Your task to perform on an android device: turn off wifi Image 0: 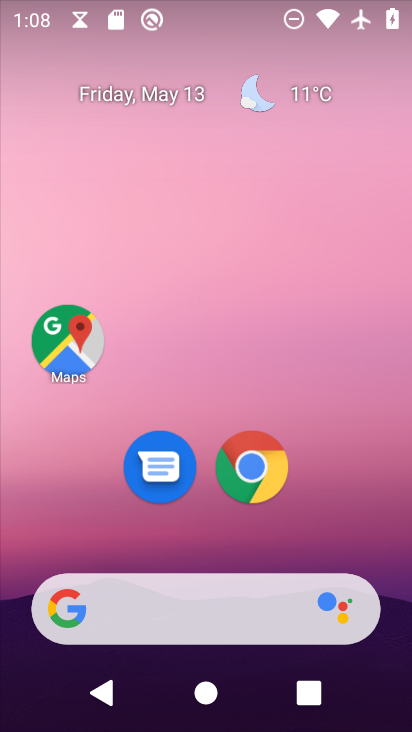
Step 0: drag from (320, 398) to (230, 34)
Your task to perform on an android device: turn off wifi Image 1: 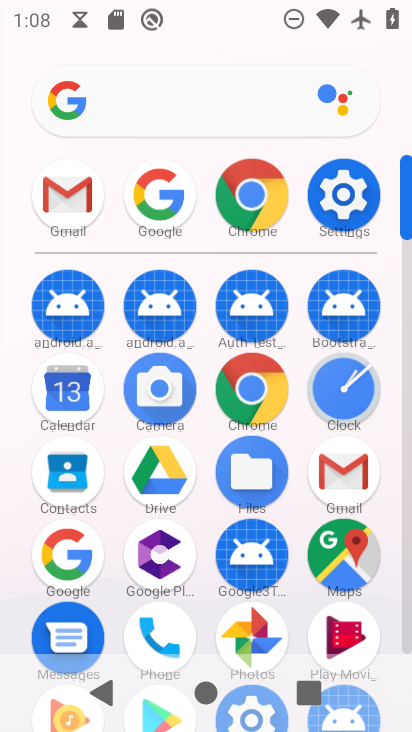
Step 1: click (359, 212)
Your task to perform on an android device: turn off wifi Image 2: 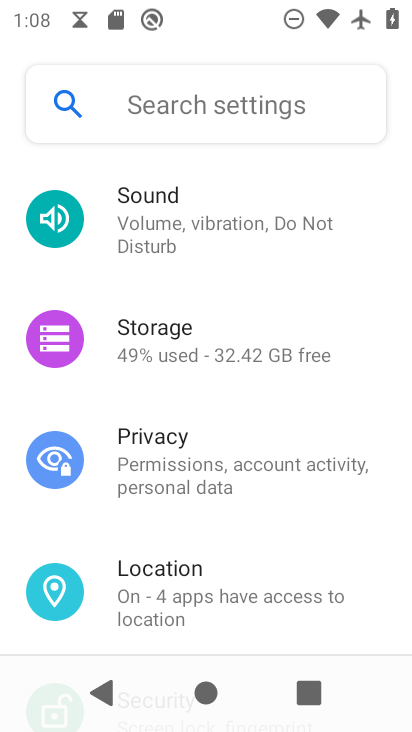
Step 2: drag from (245, 240) to (245, 572)
Your task to perform on an android device: turn off wifi Image 3: 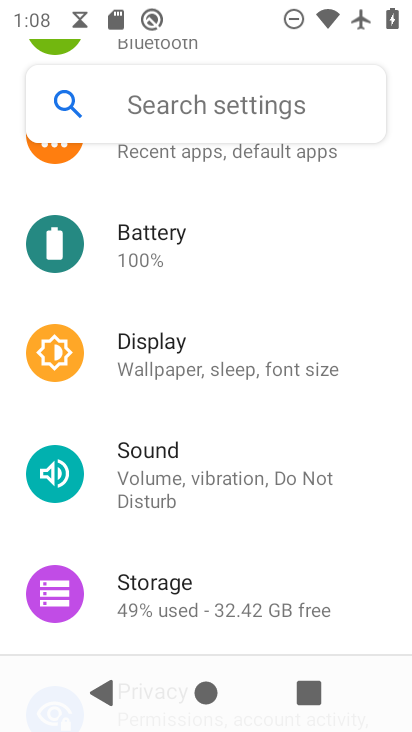
Step 3: drag from (237, 254) to (232, 591)
Your task to perform on an android device: turn off wifi Image 4: 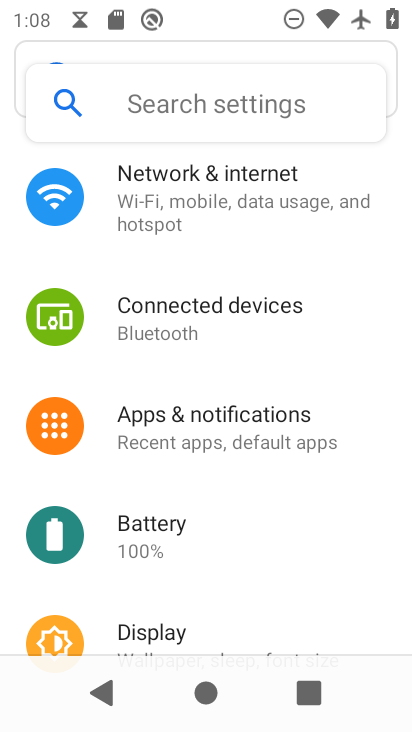
Step 4: click (224, 193)
Your task to perform on an android device: turn off wifi Image 5: 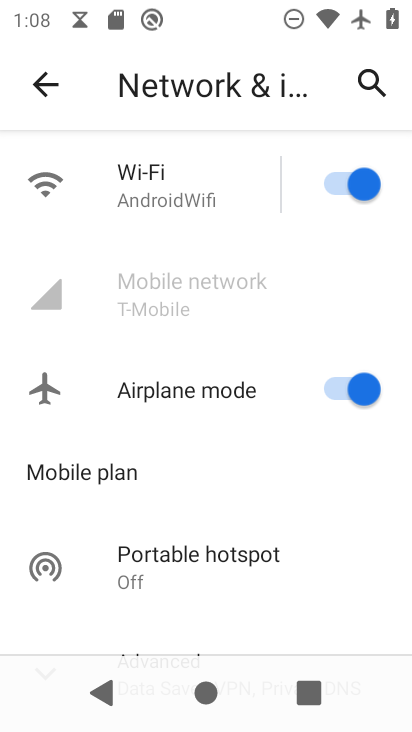
Step 5: click (350, 181)
Your task to perform on an android device: turn off wifi Image 6: 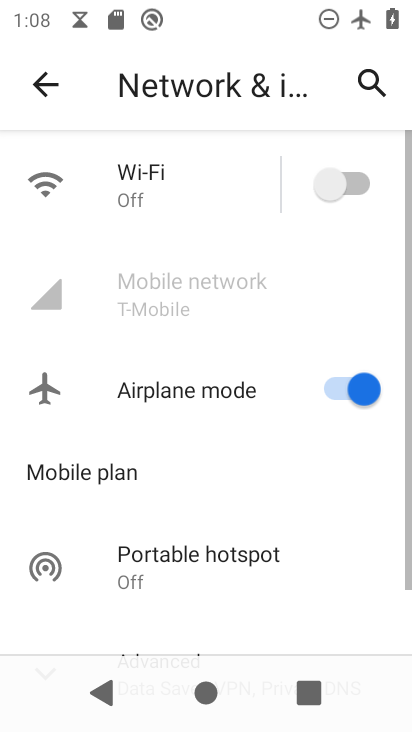
Step 6: task complete